Your task to perform on an android device: Show me productivity apps on the Play Store Image 0: 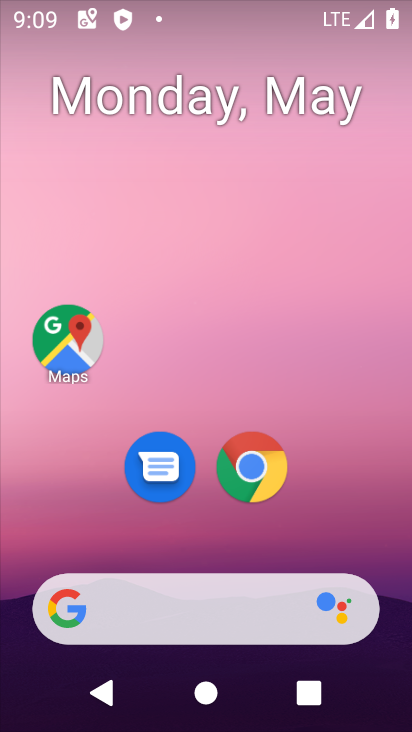
Step 0: drag from (330, 533) to (241, 0)
Your task to perform on an android device: Show me productivity apps on the Play Store Image 1: 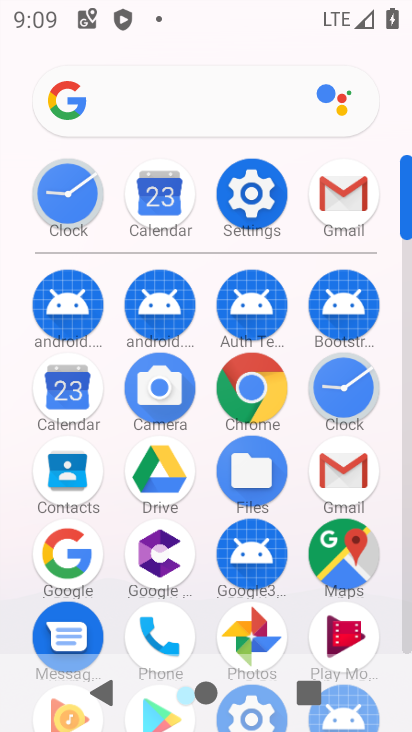
Step 1: drag from (216, 634) to (215, 275)
Your task to perform on an android device: Show me productivity apps on the Play Store Image 2: 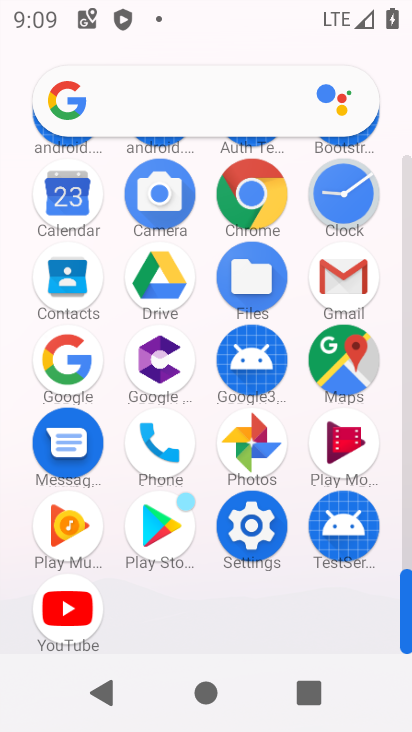
Step 2: click (167, 536)
Your task to perform on an android device: Show me productivity apps on the Play Store Image 3: 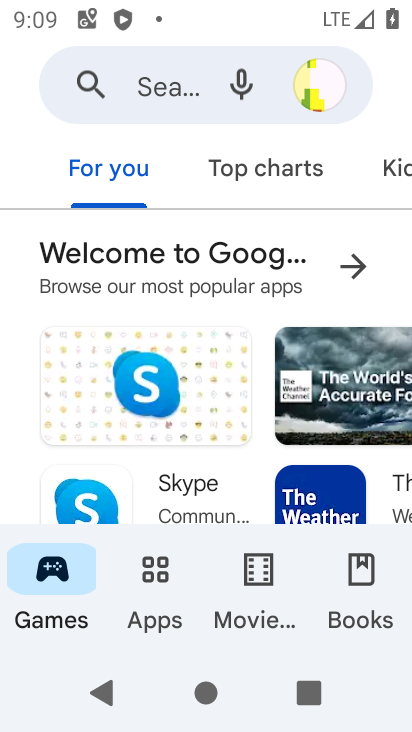
Step 3: click (164, 586)
Your task to perform on an android device: Show me productivity apps on the Play Store Image 4: 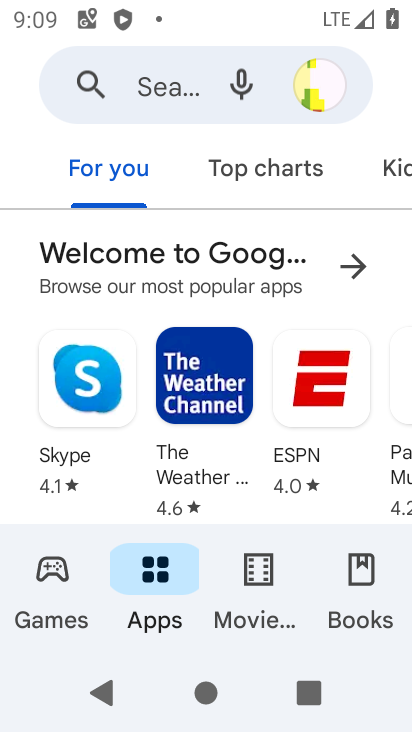
Step 4: click (173, 84)
Your task to perform on an android device: Show me productivity apps on the Play Store Image 5: 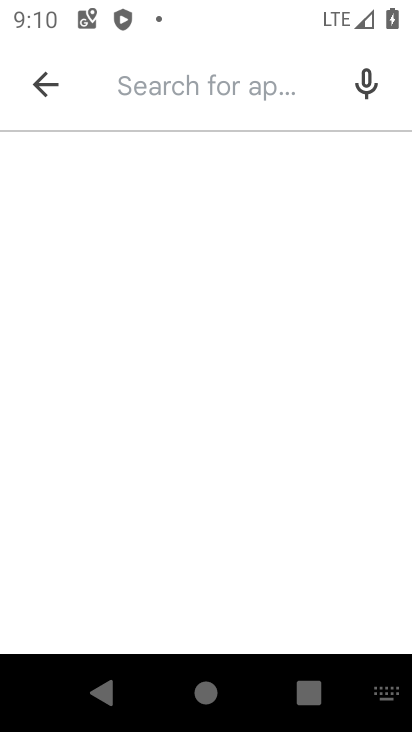
Step 5: type "productivity apps"
Your task to perform on an android device: Show me productivity apps on the Play Store Image 6: 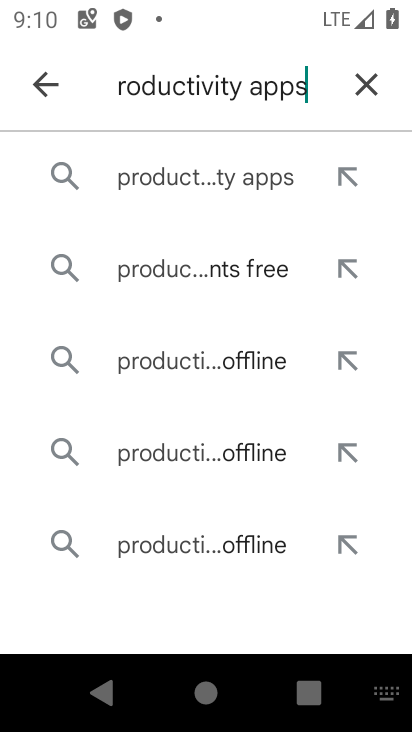
Step 6: click (207, 177)
Your task to perform on an android device: Show me productivity apps on the Play Store Image 7: 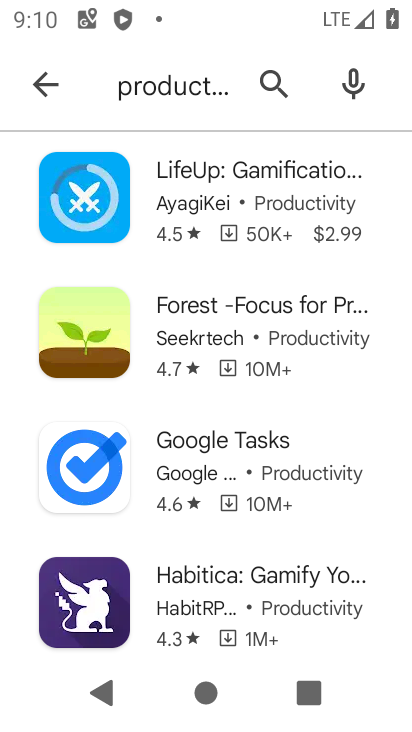
Step 7: task complete